Your task to perform on an android device: change notification settings in the gmail app Image 0: 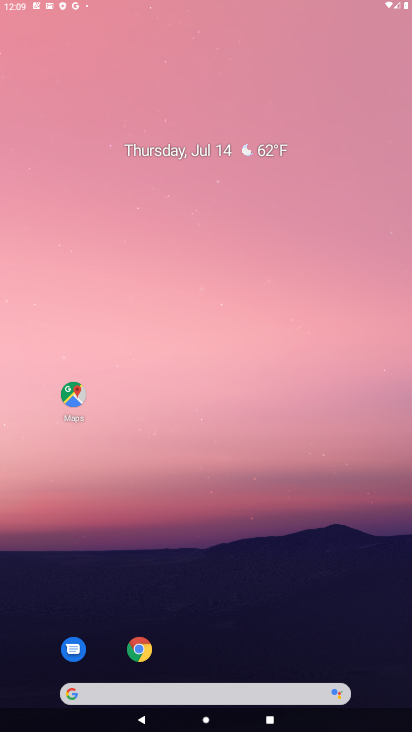
Step 0: press home button
Your task to perform on an android device: change notification settings in the gmail app Image 1: 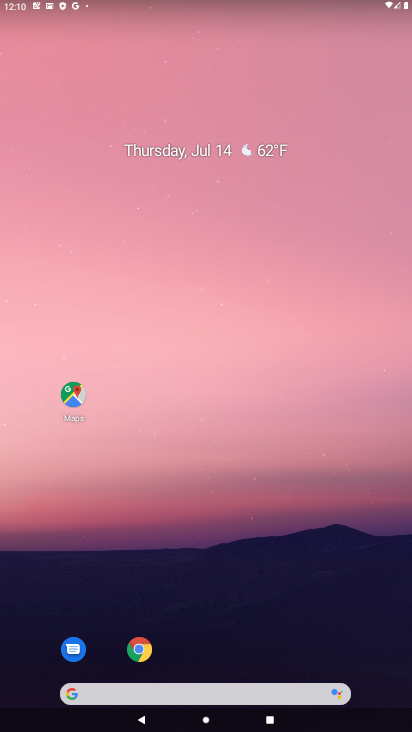
Step 1: drag from (345, 660) to (299, 146)
Your task to perform on an android device: change notification settings in the gmail app Image 2: 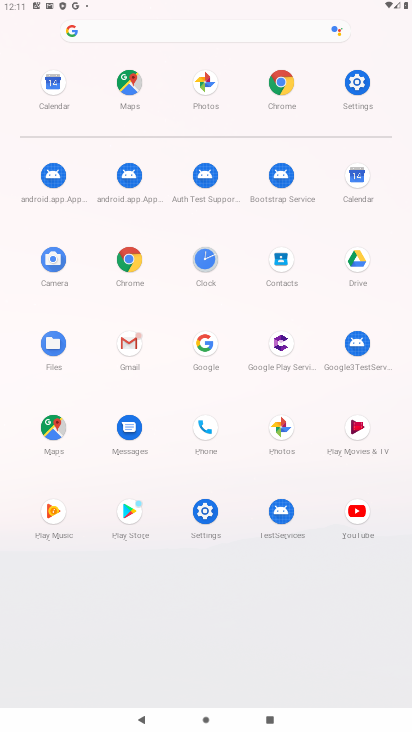
Step 2: click (119, 338)
Your task to perform on an android device: change notification settings in the gmail app Image 3: 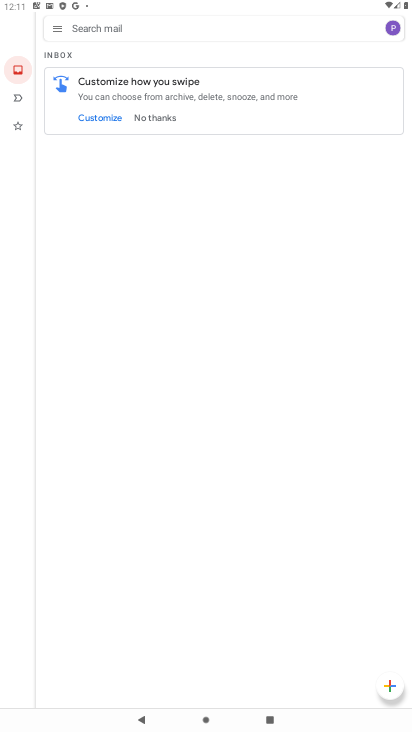
Step 3: click (59, 28)
Your task to perform on an android device: change notification settings in the gmail app Image 4: 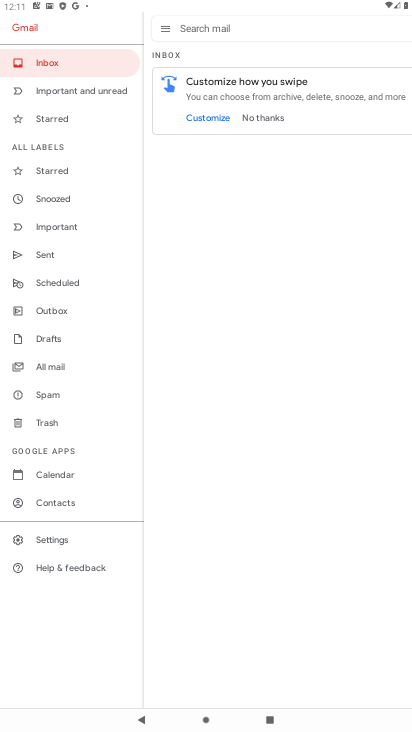
Step 4: click (64, 541)
Your task to perform on an android device: change notification settings in the gmail app Image 5: 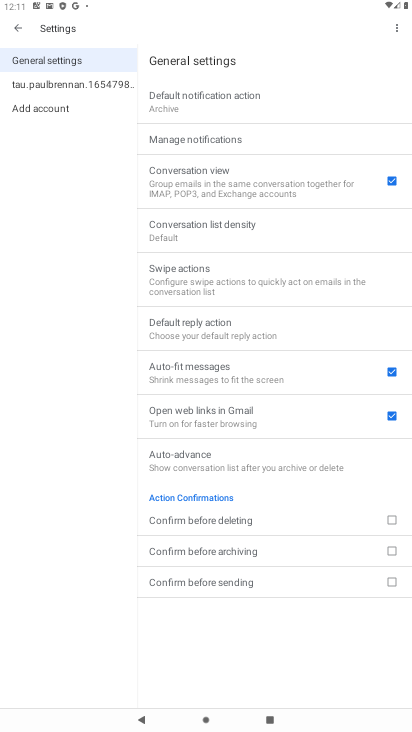
Step 5: click (83, 75)
Your task to perform on an android device: change notification settings in the gmail app Image 6: 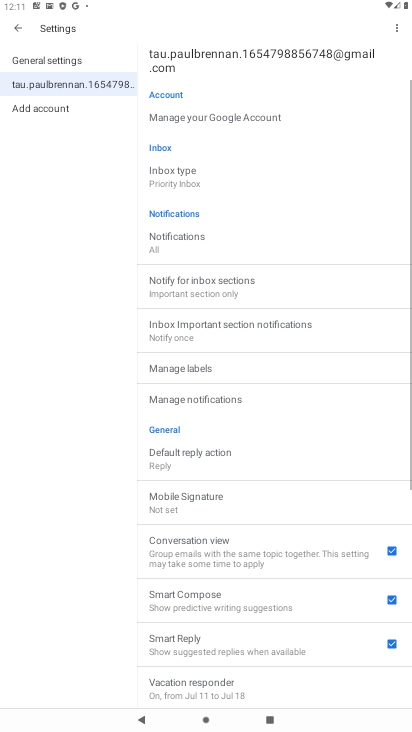
Step 6: click (199, 244)
Your task to perform on an android device: change notification settings in the gmail app Image 7: 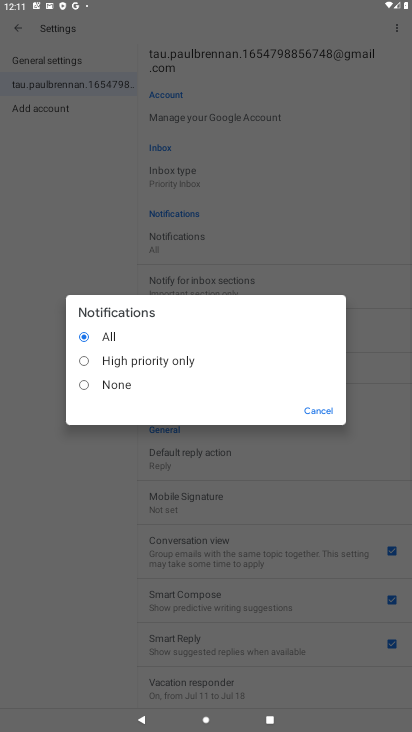
Step 7: click (105, 382)
Your task to perform on an android device: change notification settings in the gmail app Image 8: 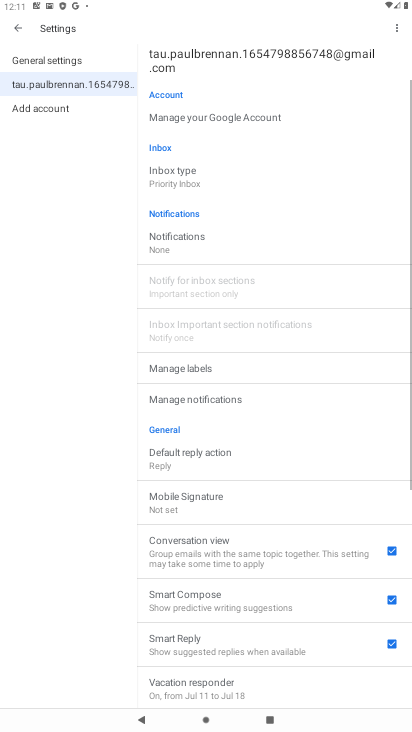
Step 8: task complete